Your task to perform on an android device: toggle show notifications on the lock screen Image 0: 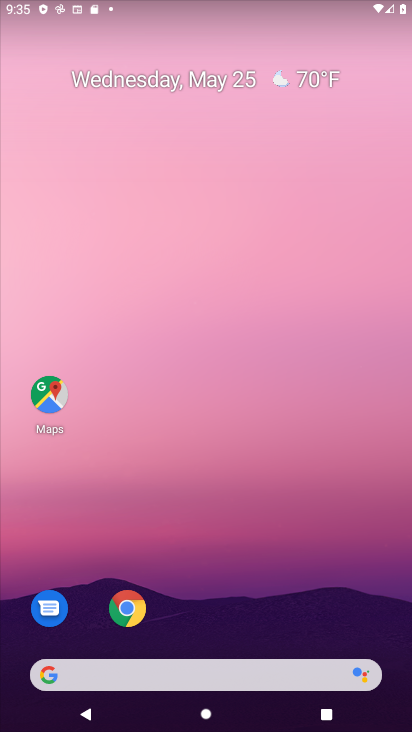
Step 0: drag from (305, 554) to (298, 62)
Your task to perform on an android device: toggle show notifications on the lock screen Image 1: 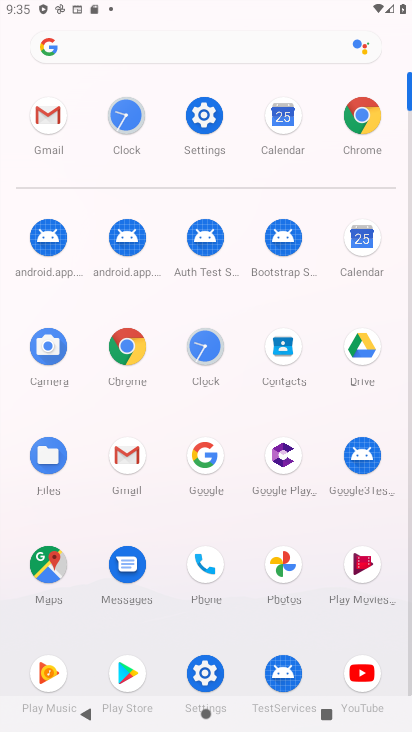
Step 1: click (211, 111)
Your task to perform on an android device: toggle show notifications on the lock screen Image 2: 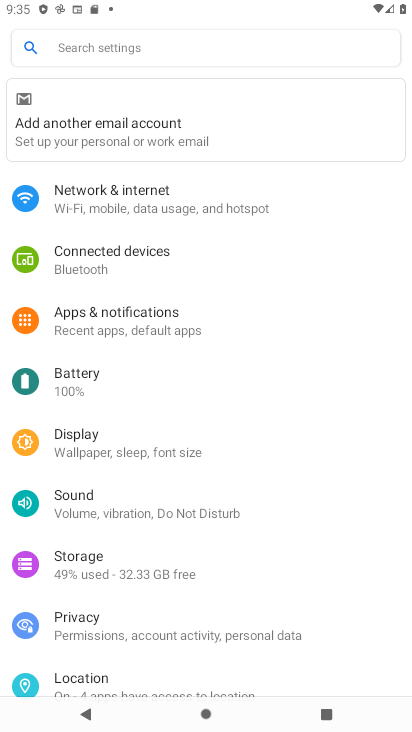
Step 2: click (150, 325)
Your task to perform on an android device: toggle show notifications on the lock screen Image 3: 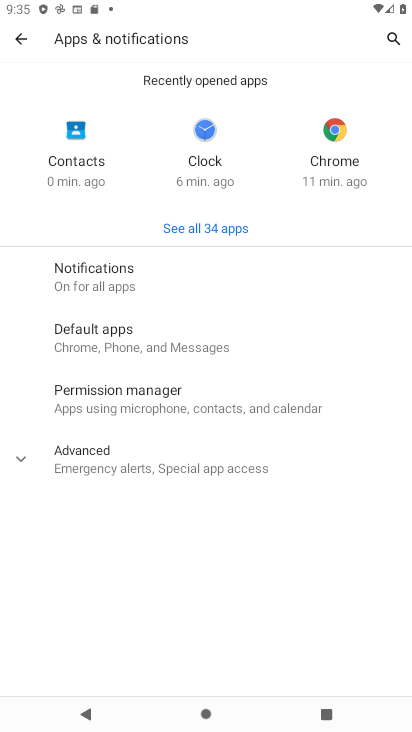
Step 3: click (153, 282)
Your task to perform on an android device: toggle show notifications on the lock screen Image 4: 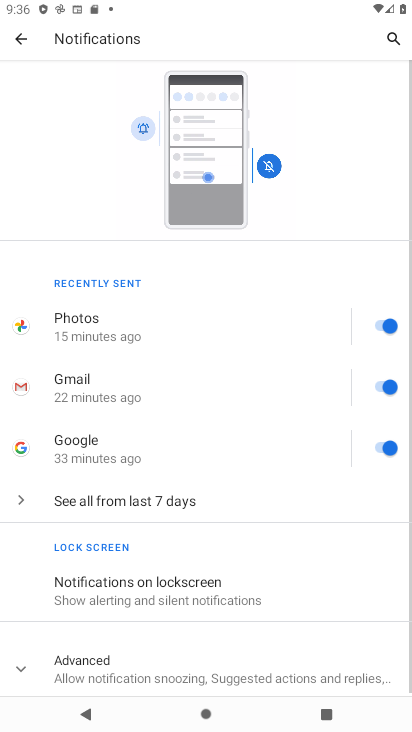
Step 4: click (174, 589)
Your task to perform on an android device: toggle show notifications on the lock screen Image 5: 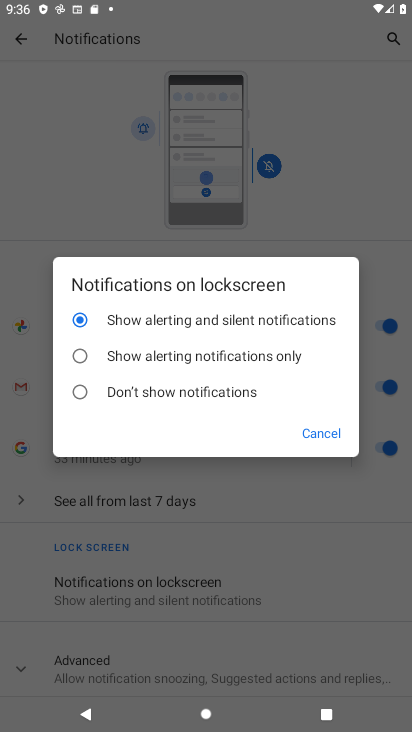
Step 5: click (162, 384)
Your task to perform on an android device: toggle show notifications on the lock screen Image 6: 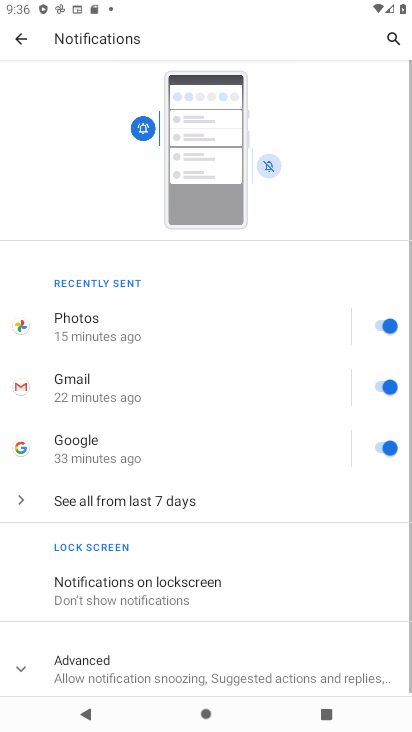
Step 6: task complete